Your task to perform on an android device: search for accent chairs on article.com Image 0: 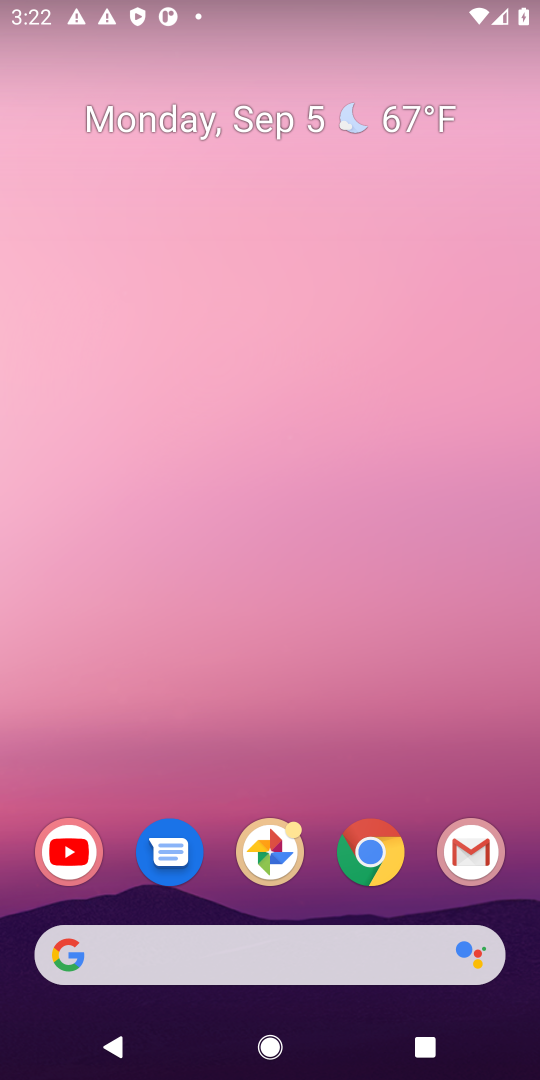
Step 0: click (373, 859)
Your task to perform on an android device: search for accent chairs on article.com Image 1: 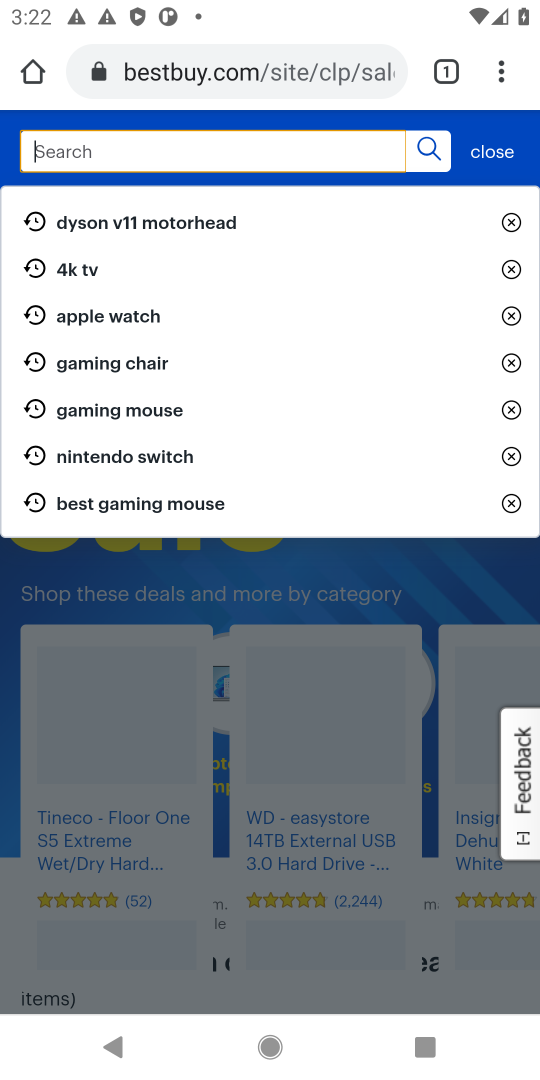
Step 1: click (283, 55)
Your task to perform on an android device: search for accent chairs on article.com Image 2: 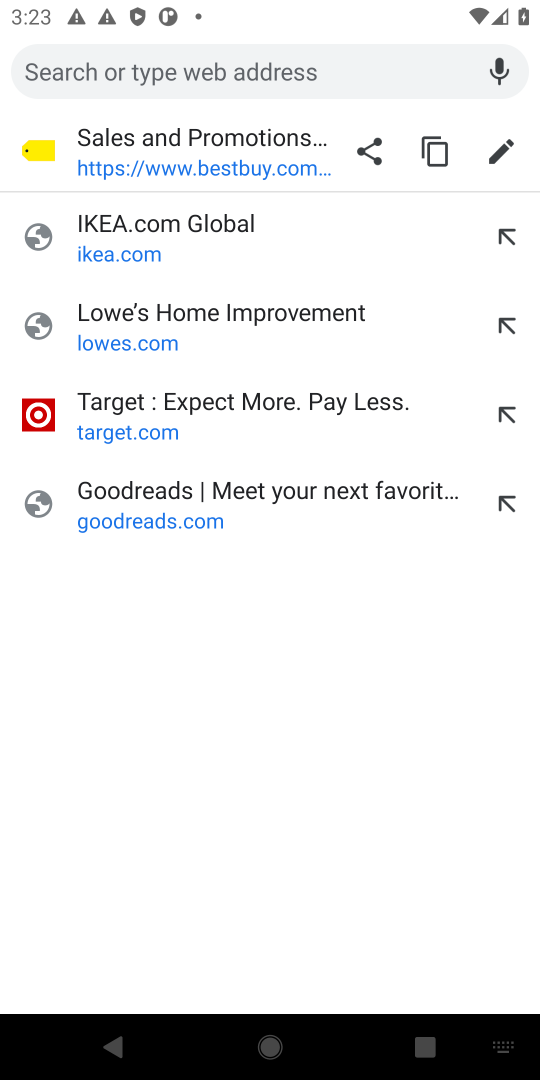
Step 2: type " article.com"
Your task to perform on an android device: search for accent chairs on article.com Image 3: 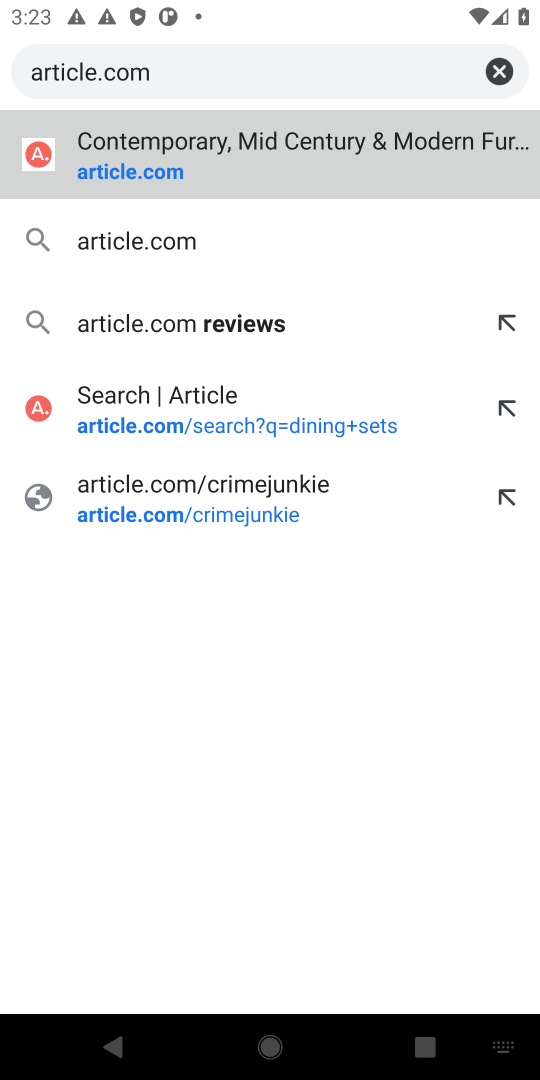
Step 3: click (126, 137)
Your task to perform on an android device: search for accent chairs on article.com Image 4: 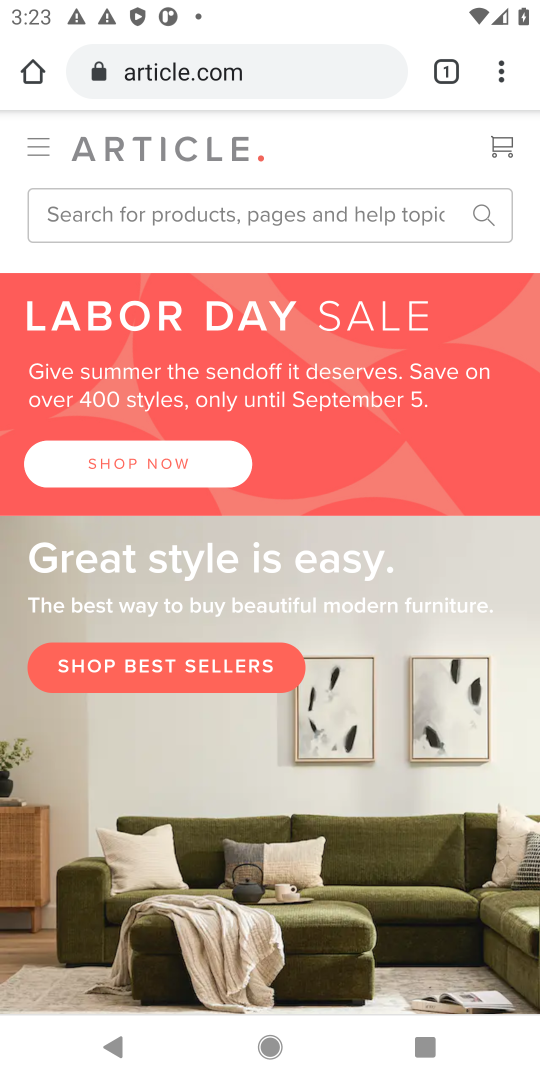
Step 4: click (217, 205)
Your task to perform on an android device: search for accent chairs on article.com Image 5: 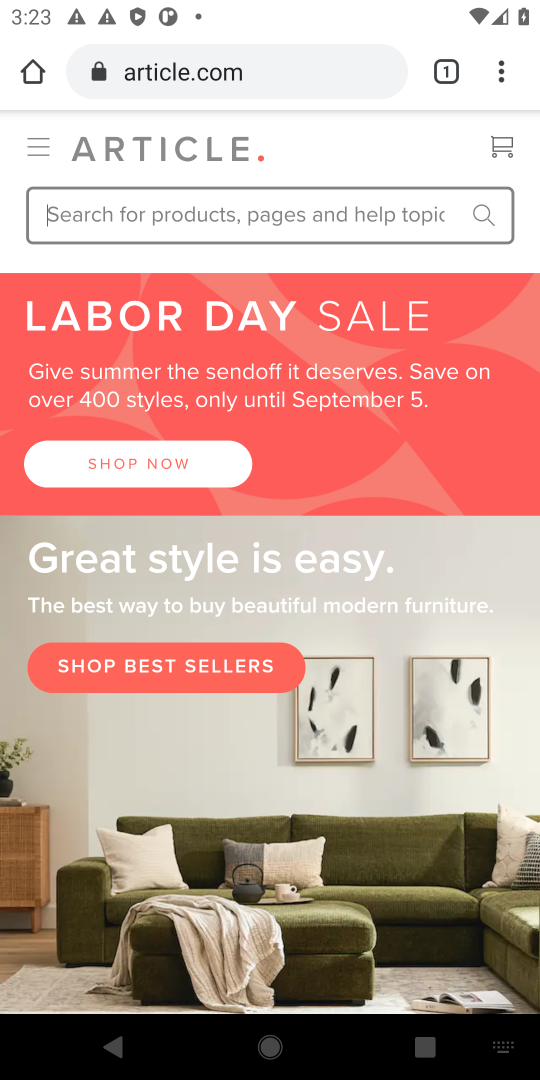
Step 5: type " accent chairs"
Your task to perform on an android device: search for accent chairs on article.com Image 6: 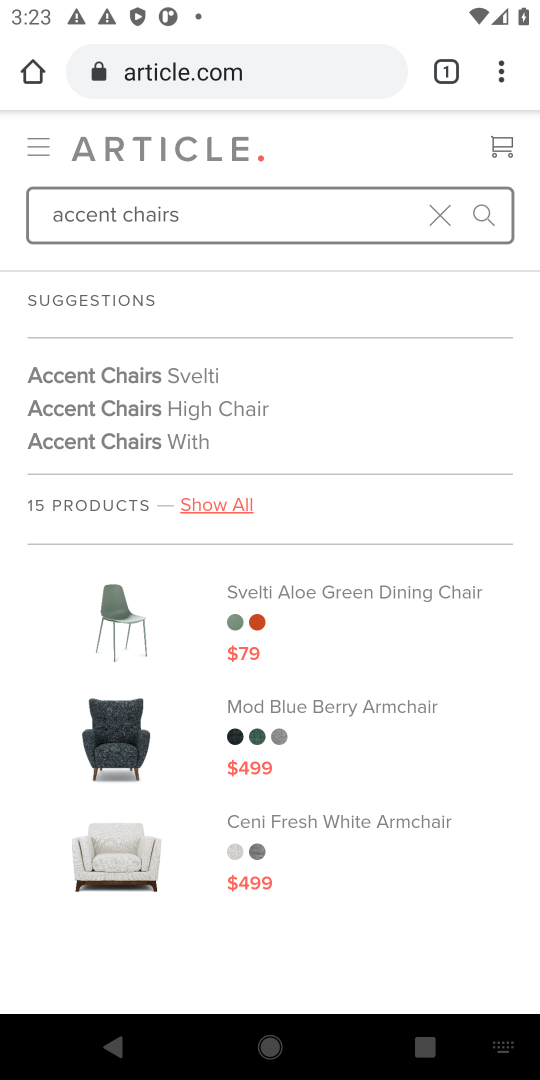
Step 6: click (483, 207)
Your task to perform on an android device: search for accent chairs on article.com Image 7: 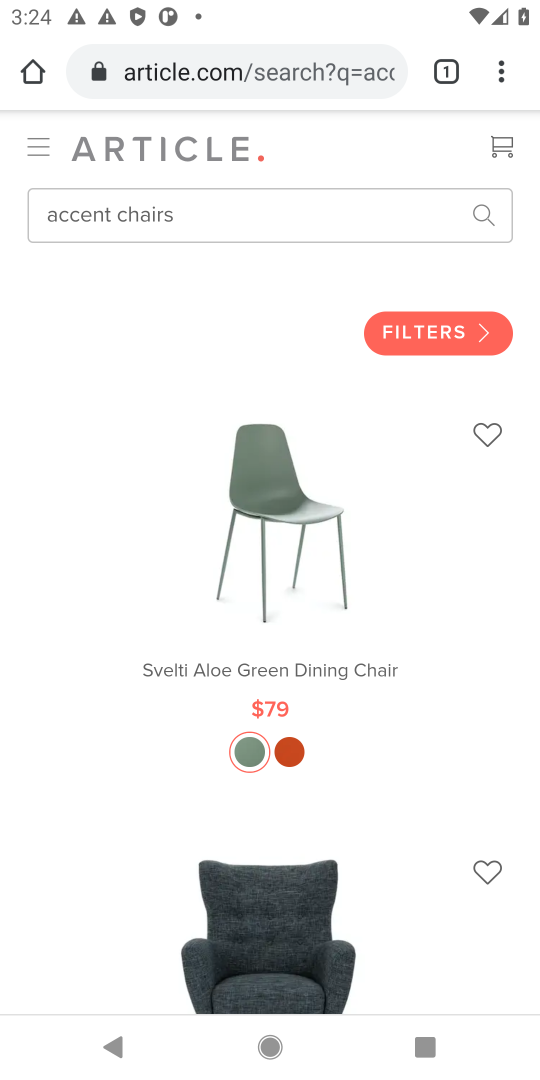
Step 7: task complete